Your task to perform on an android device: turn on location history Image 0: 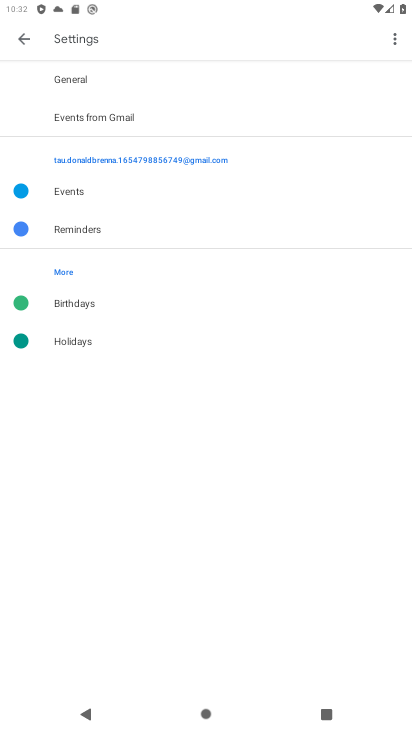
Step 0: press home button
Your task to perform on an android device: turn on location history Image 1: 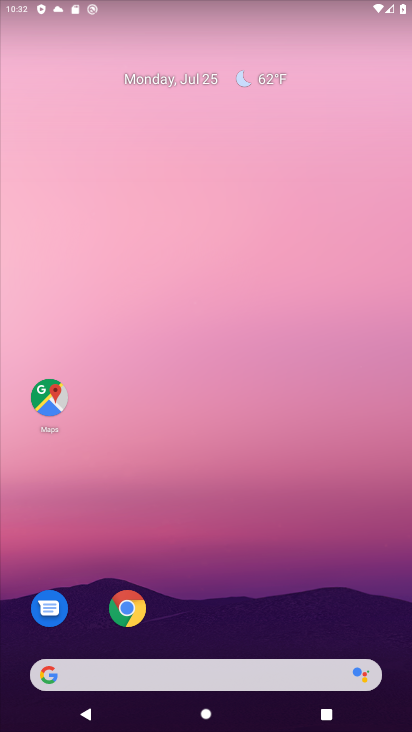
Step 1: drag from (253, 630) to (281, 4)
Your task to perform on an android device: turn on location history Image 2: 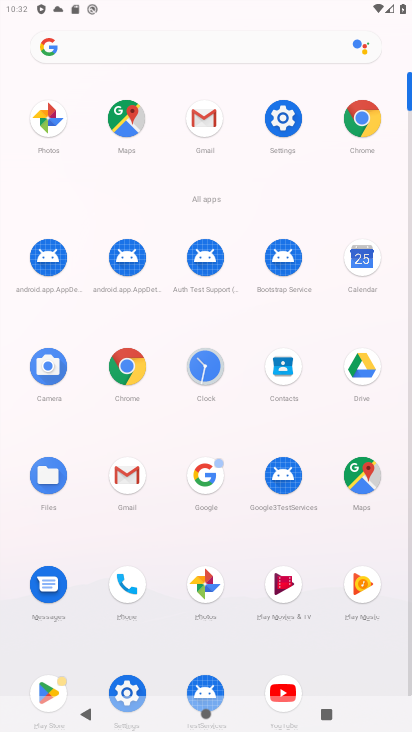
Step 2: click (128, 684)
Your task to perform on an android device: turn on location history Image 3: 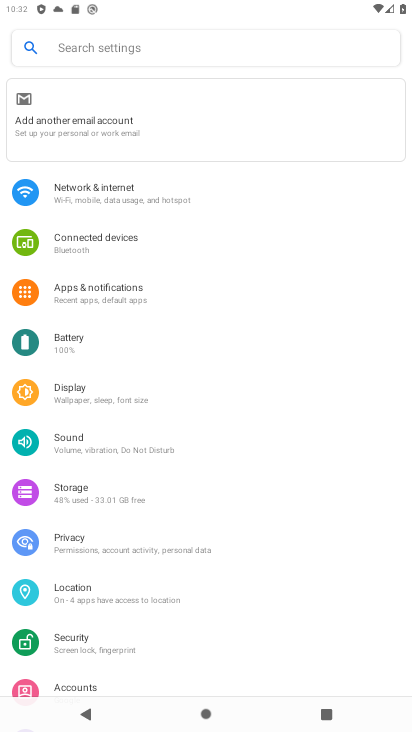
Step 3: click (76, 594)
Your task to perform on an android device: turn on location history Image 4: 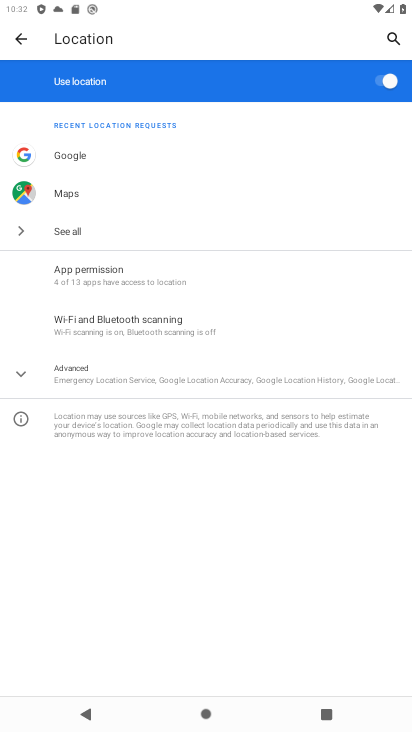
Step 4: click (172, 374)
Your task to perform on an android device: turn on location history Image 5: 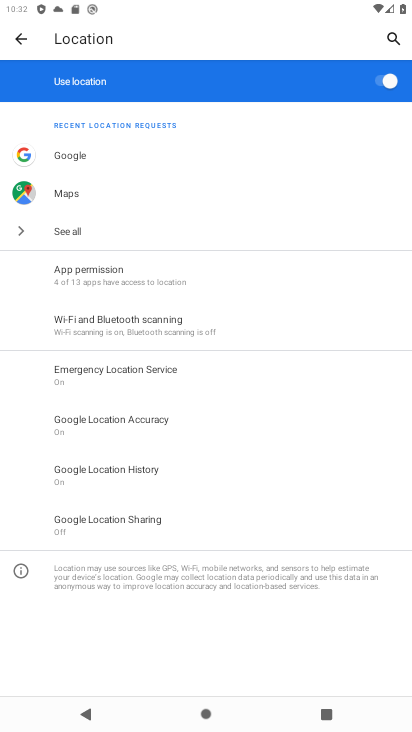
Step 5: click (138, 472)
Your task to perform on an android device: turn on location history Image 6: 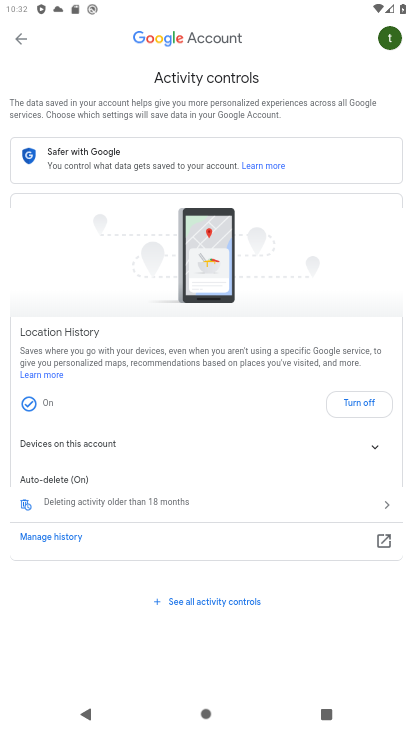
Step 6: task complete